Your task to perform on an android device: turn on the 12-hour format for clock Image 0: 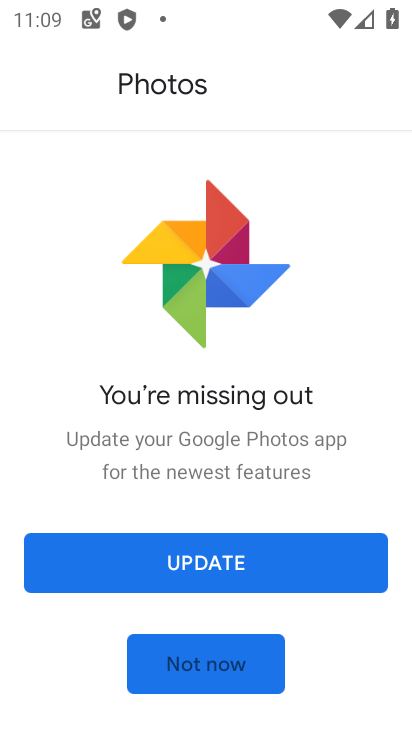
Step 0: press home button
Your task to perform on an android device: turn on the 12-hour format for clock Image 1: 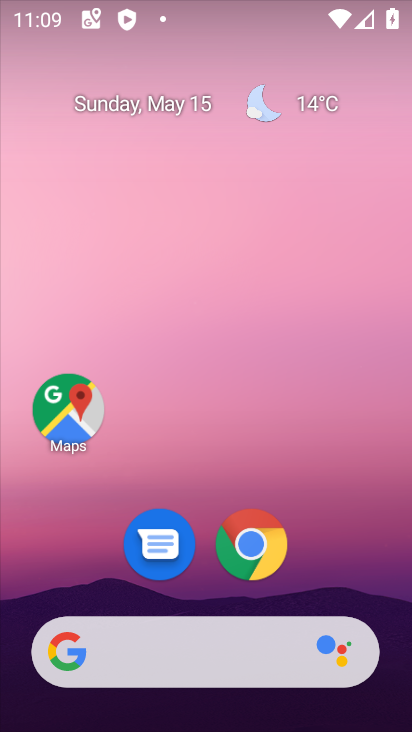
Step 1: drag from (174, 617) to (299, 30)
Your task to perform on an android device: turn on the 12-hour format for clock Image 2: 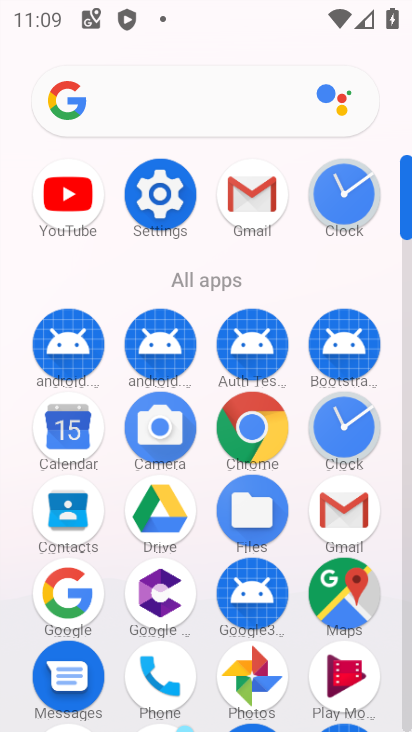
Step 2: click (360, 431)
Your task to perform on an android device: turn on the 12-hour format for clock Image 3: 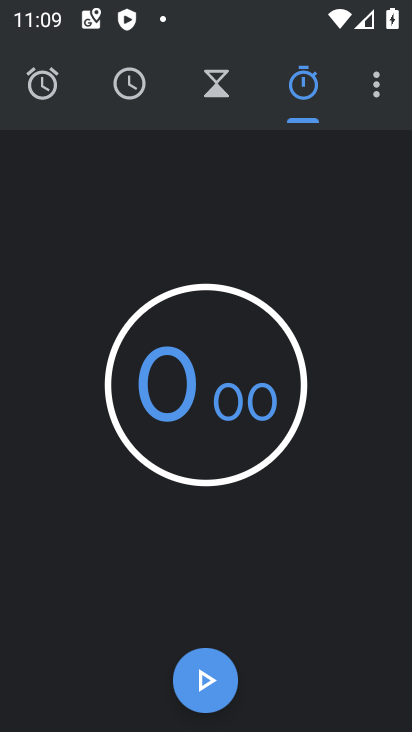
Step 3: click (373, 91)
Your task to perform on an android device: turn on the 12-hour format for clock Image 4: 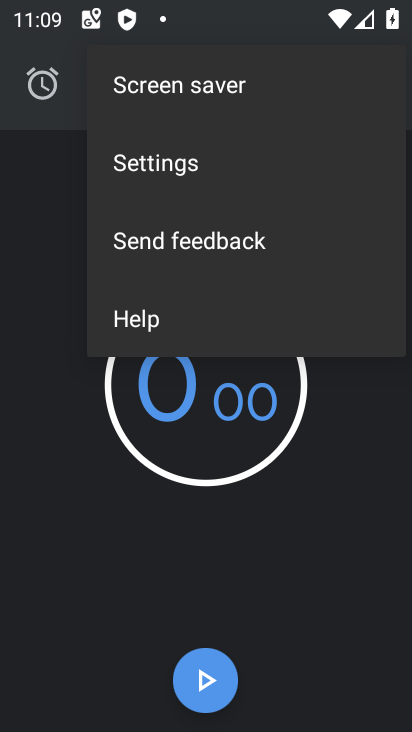
Step 4: click (299, 143)
Your task to perform on an android device: turn on the 12-hour format for clock Image 5: 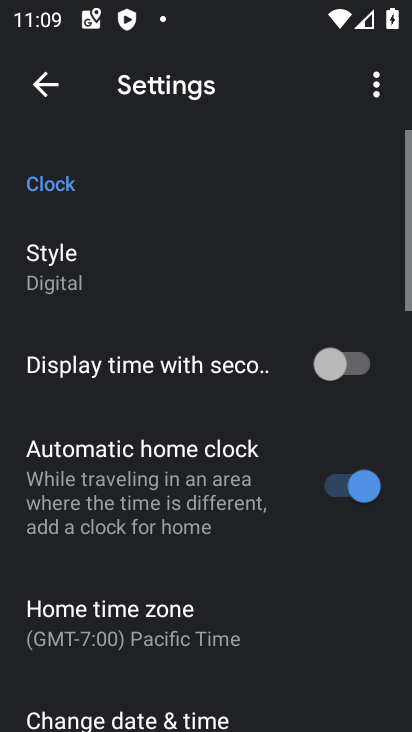
Step 5: drag from (214, 544) to (308, 189)
Your task to perform on an android device: turn on the 12-hour format for clock Image 6: 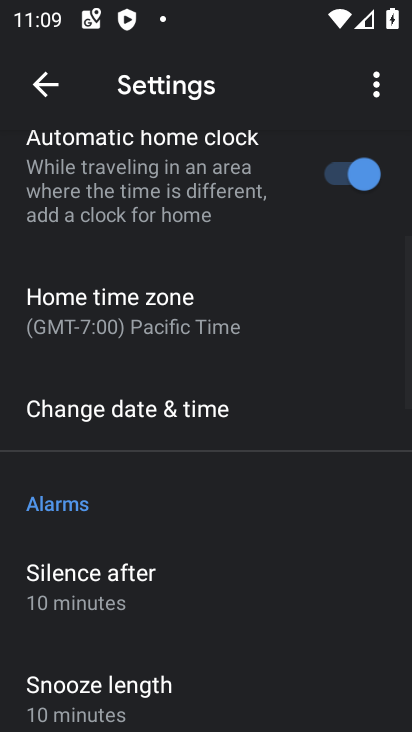
Step 6: click (231, 435)
Your task to perform on an android device: turn on the 12-hour format for clock Image 7: 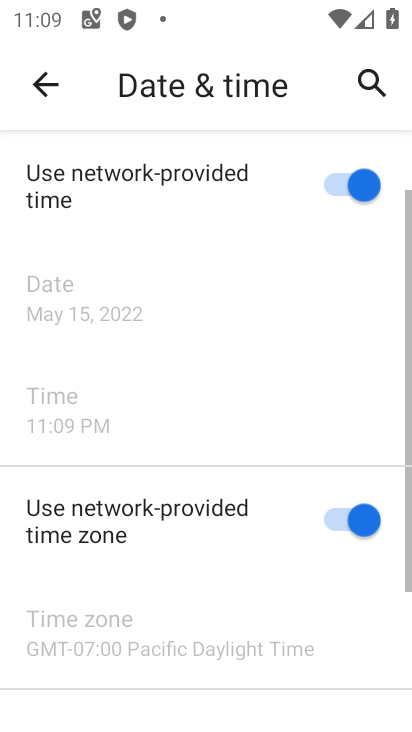
Step 7: task complete